Your task to perform on an android device: Show me the alarms in the clock app Image 0: 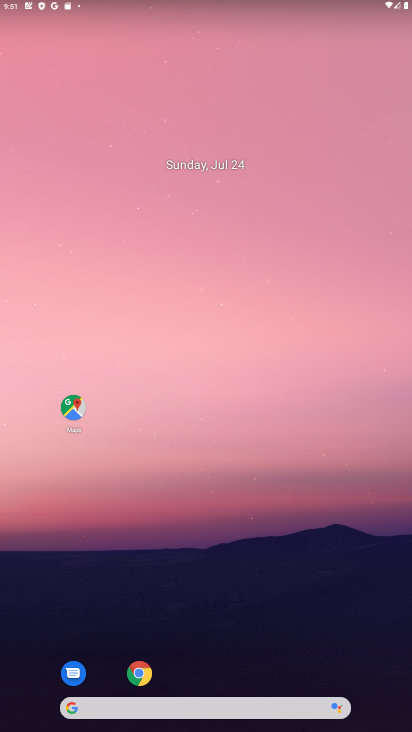
Step 0: drag from (75, 608) to (269, 78)
Your task to perform on an android device: Show me the alarms in the clock app Image 1: 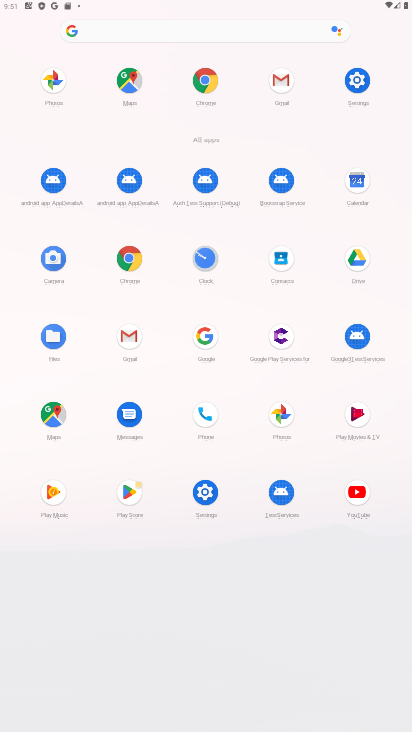
Step 1: click (198, 263)
Your task to perform on an android device: Show me the alarms in the clock app Image 2: 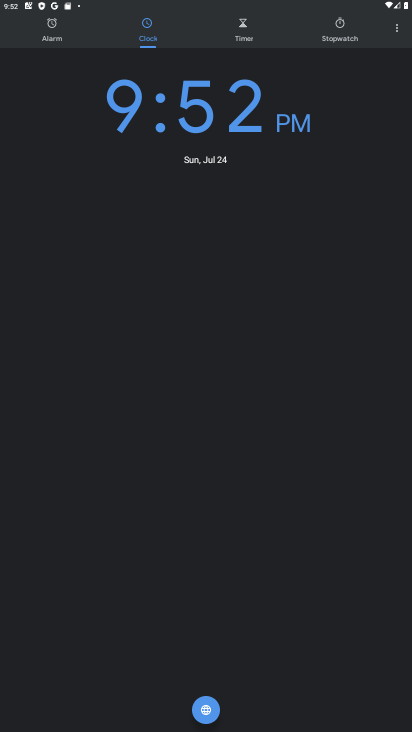
Step 2: click (30, 39)
Your task to perform on an android device: Show me the alarms in the clock app Image 3: 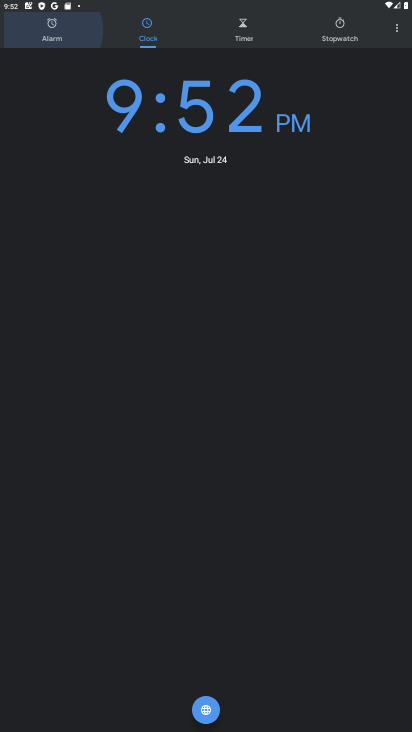
Step 3: click (41, 37)
Your task to perform on an android device: Show me the alarms in the clock app Image 4: 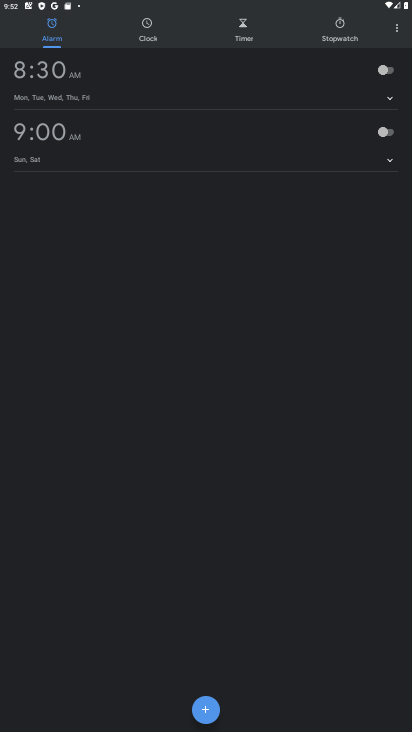
Step 4: task complete